Your task to perform on an android device: turn on javascript in the chrome app Image 0: 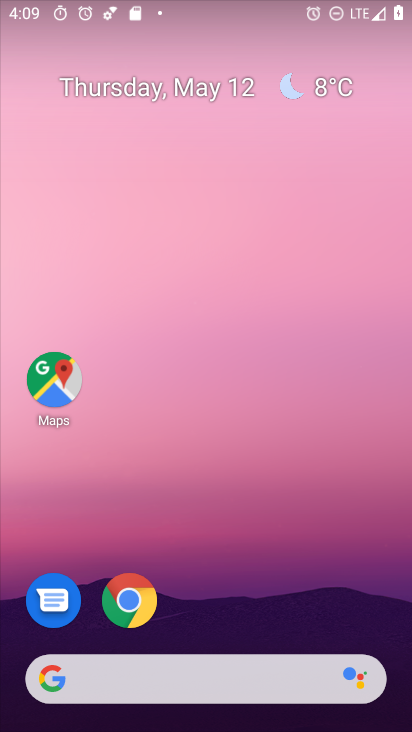
Step 0: click (135, 599)
Your task to perform on an android device: turn on javascript in the chrome app Image 1: 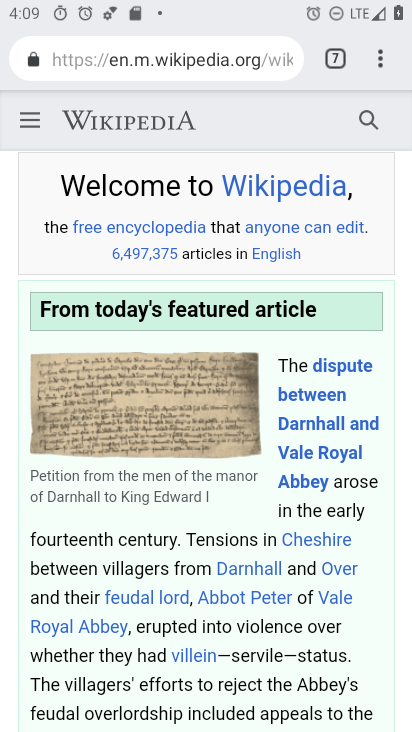
Step 1: click (382, 65)
Your task to perform on an android device: turn on javascript in the chrome app Image 2: 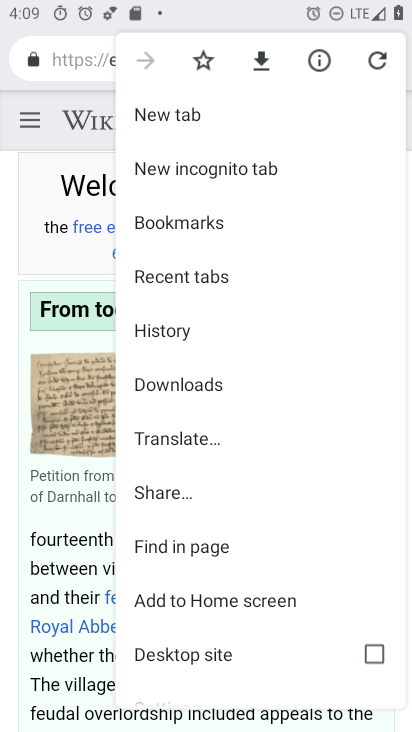
Step 2: drag from (194, 612) to (197, 260)
Your task to perform on an android device: turn on javascript in the chrome app Image 3: 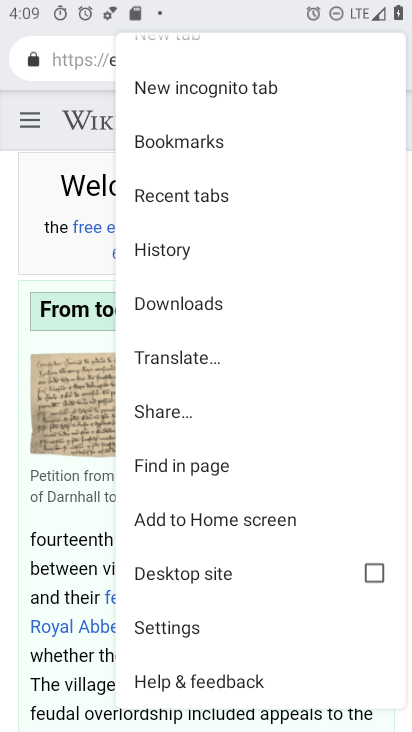
Step 3: click (170, 625)
Your task to perform on an android device: turn on javascript in the chrome app Image 4: 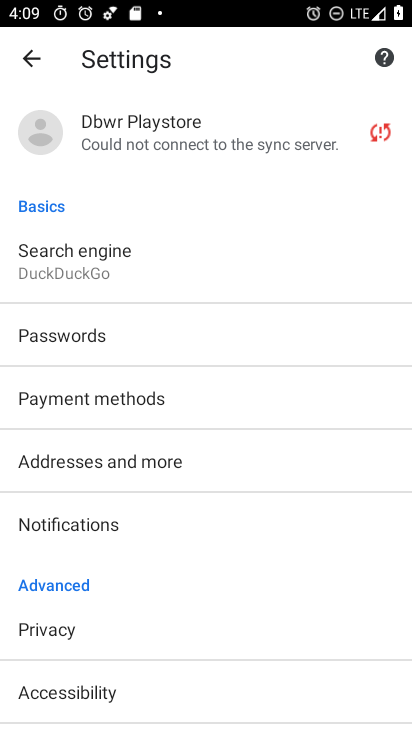
Step 4: drag from (136, 632) to (172, 219)
Your task to perform on an android device: turn on javascript in the chrome app Image 5: 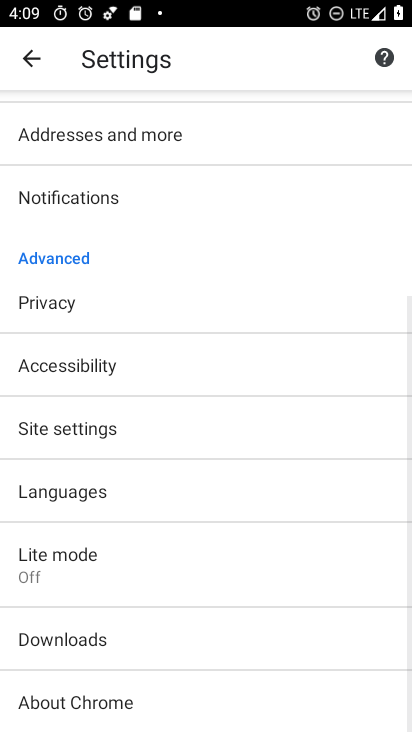
Step 5: click (91, 423)
Your task to perform on an android device: turn on javascript in the chrome app Image 6: 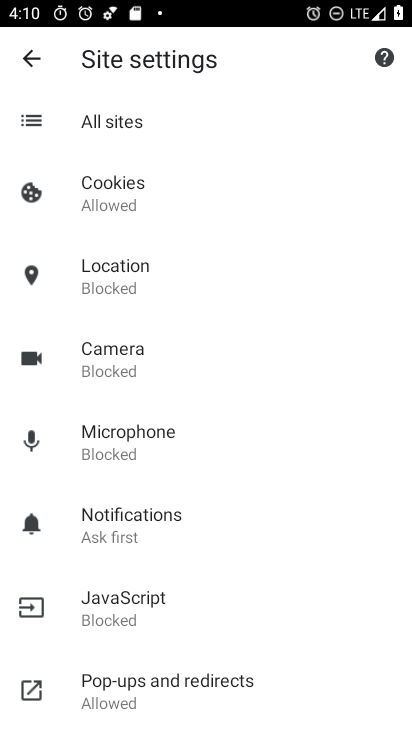
Step 6: click (115, 602)
Your task to perform on an android device: turn on javascript in the chrome app Image 7: 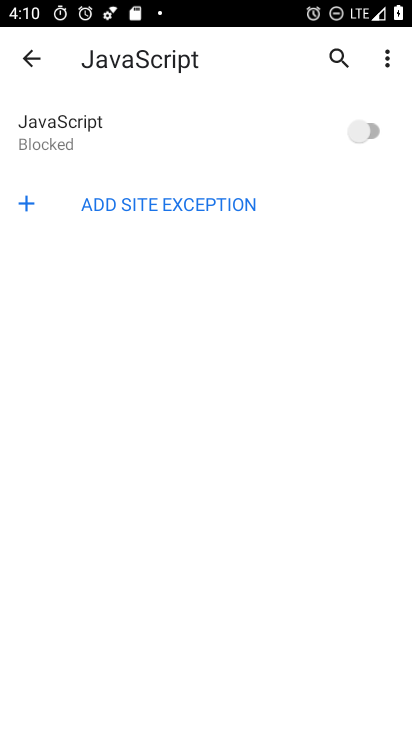
Step 7: click (371, 132)
Your task to perform on an android device: turn on javascript in the chrome app Image 8: 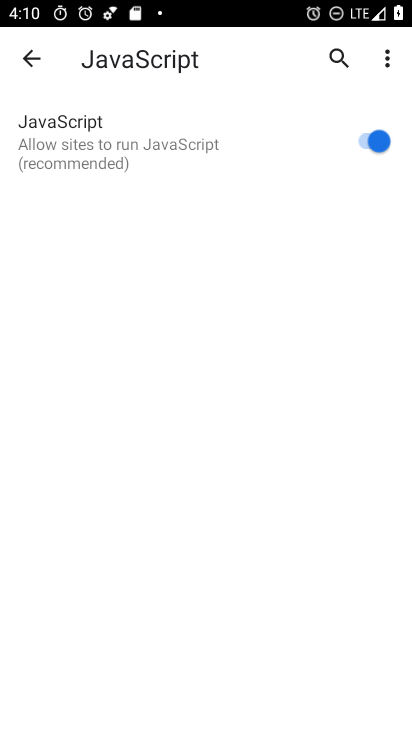
Step 8: task complete